Your task to perform on an android device: stop showing notifications on the lock screen Image 0: 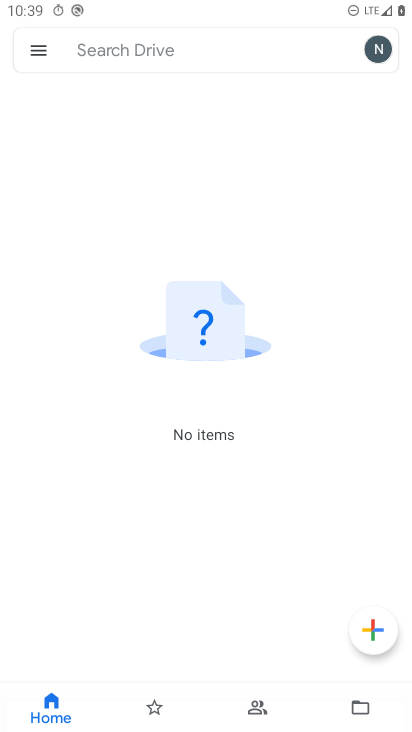
Step 0: press home button
Your task to perform on an android device: stop showing notifications on the lock screen Image 1: 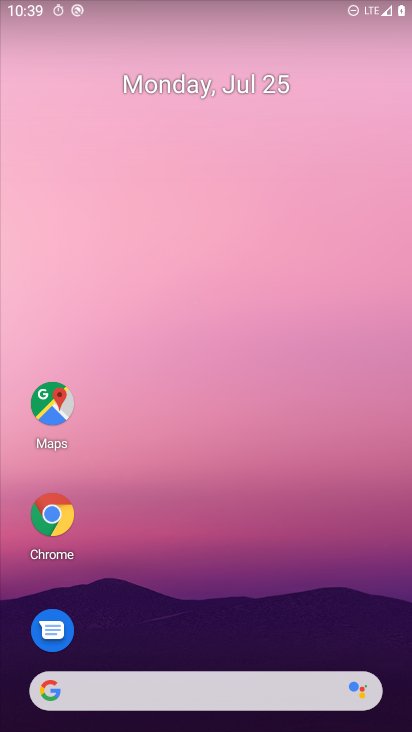
Step 1: drag from (18, 678) to (232, 124)
Your task to perform on an android device: stop showing notifications on the lock screen Image 2: 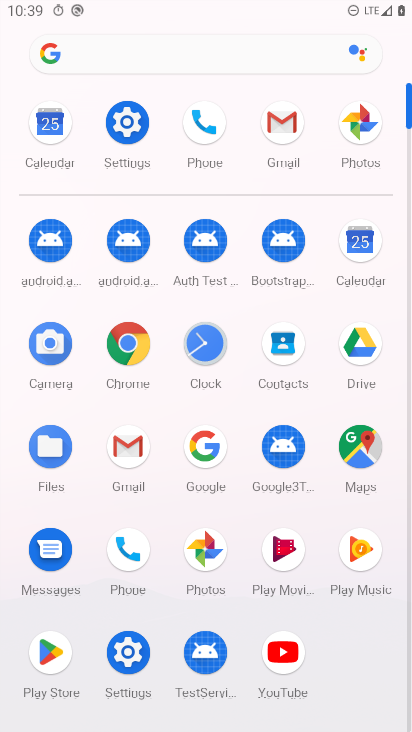
Step 2: click (115, 667)
Your task to perform on an android device: stop showing notifications on the lock screen Image 3: 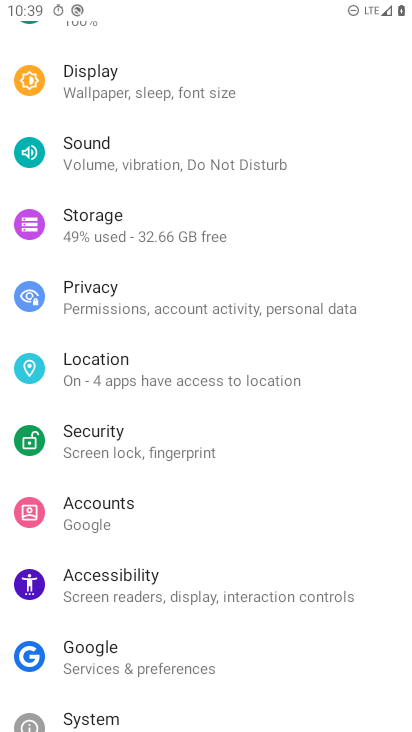
Step 3: drag from (238, 696) to (289, 452)
Your task to perform on an android device: stop showing notifications on the lock screen Image 4: 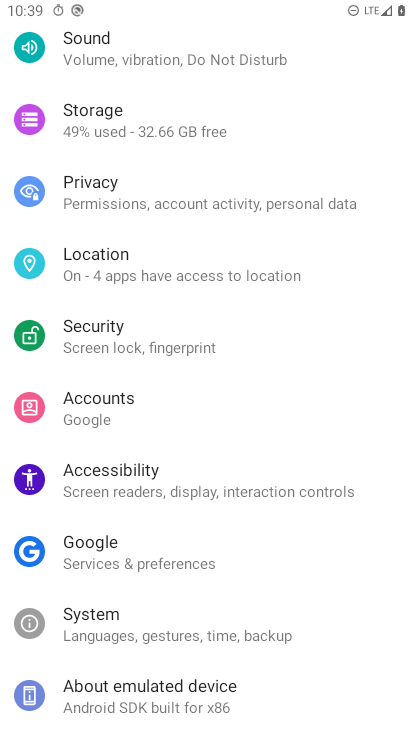
Step 4: drag from (302, 69) to (357, 696)
Your task to perform on an android device: stop showing notifications on the lock screen Image 5: 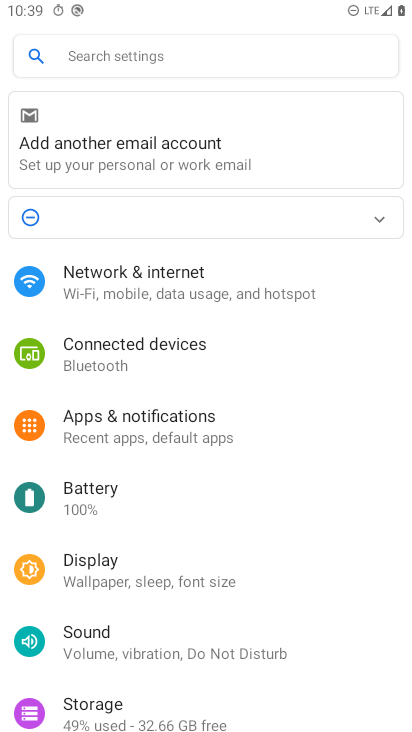
Step 5: click (150, 423)
Your task to perform on an android device: stop showing notifications on the lock screen Image 6: 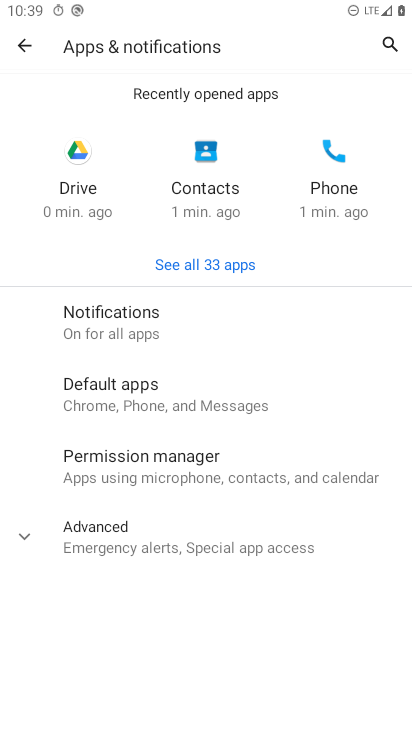
Step 6: click (126, 532)
Your task to perform on an android device: stop showing notifications on the lock screen Image 7: 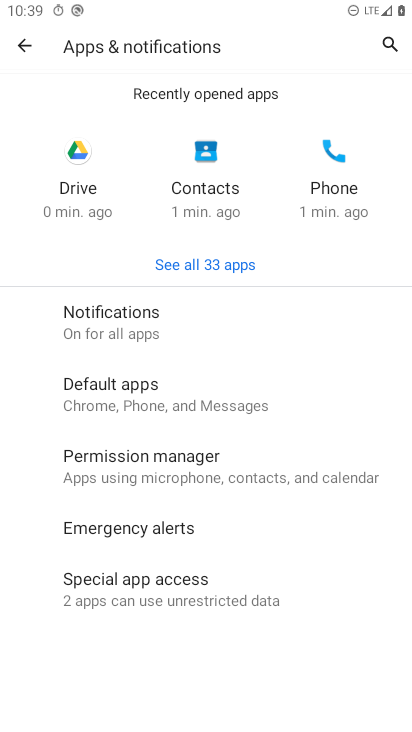
Step 7: click (143, 319)
Your task to perform on an android device: stop showing notifications on the lock screen Image 8: 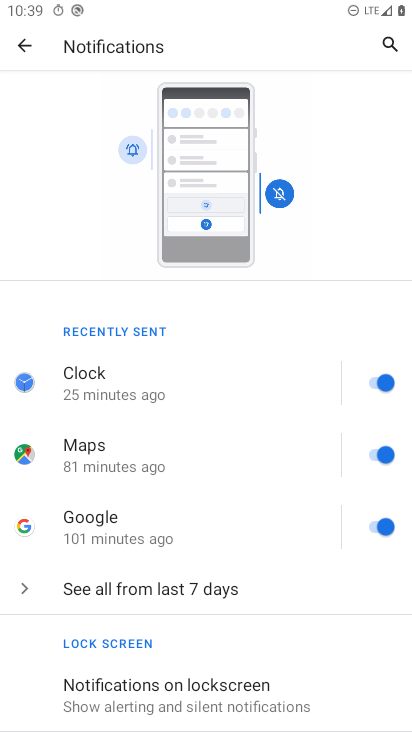
Step 8: drag from (341, 645) to (340, 207)
Your task to perform on an android device: stop showing notifications on the lock screen Image 9: 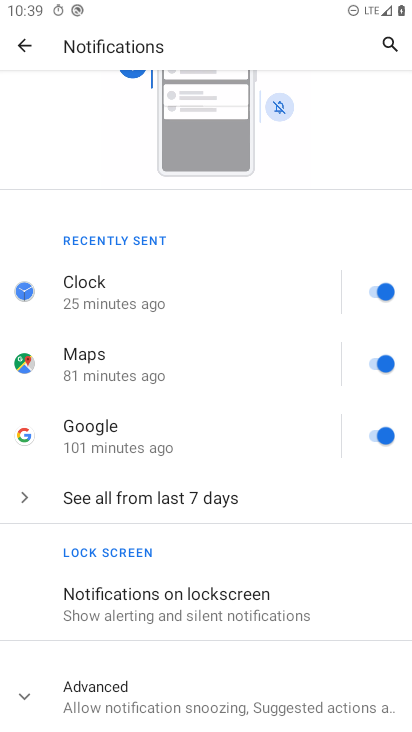
Step 9: click (144, 692)
Your task to perform on an android device: stop showing notifications on the lock screen Image 10: 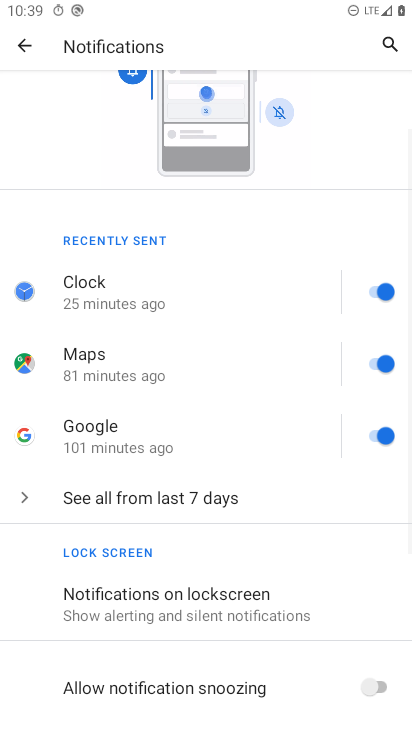
Step 10: drag from (218, 713) to (244, 438)
Your task to perform on an android device: stop showing notifications on the lock screen Image 11: 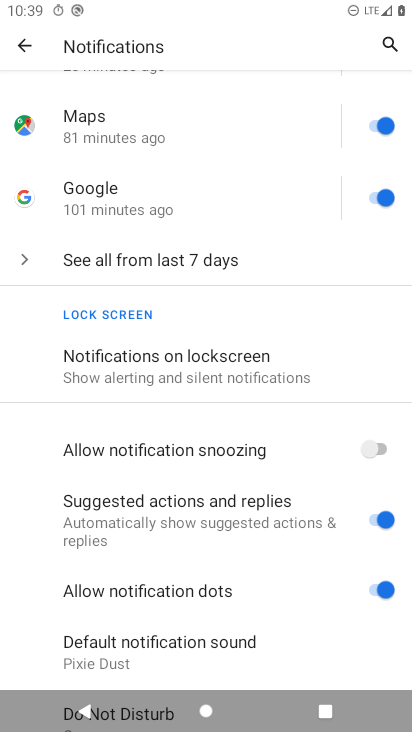
Step 11: drag from (179, 693) to (241, 297)
Your task to perform on an android device: stop showing notifications on the lock screen Image 12: 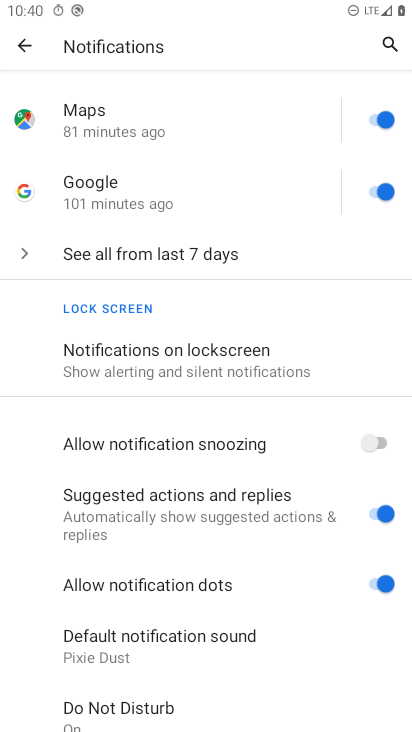
Step 12: drag from (270, 690) to (311, 420)
Your task to perform on an android device: stop showing notifications on the lock screen Image 13: 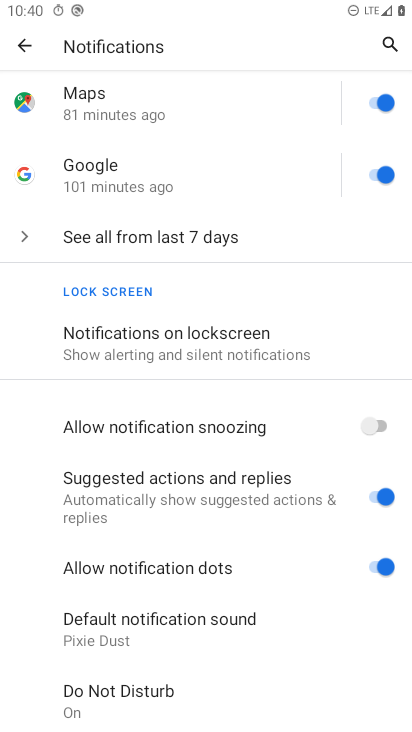
Step 13: click (103, 340)
Your task to perform on an android device: stop showing notifications on the lock screen Image 14: 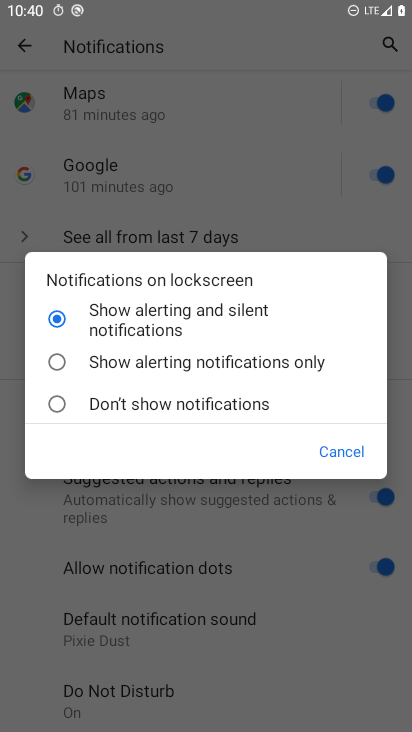
Step 14: click (60, 401)
Your task to perform on an android device: stop showing notifications on the lock screen Image 15: 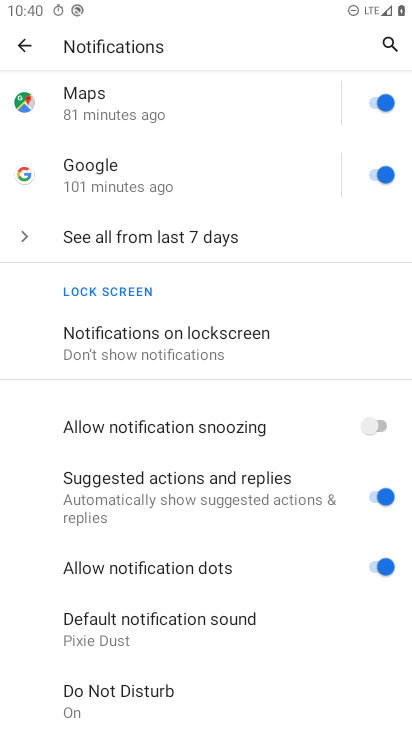
Step 15: task complete